Your task to perform on an android device: add a contact in the contacts app Image 0: 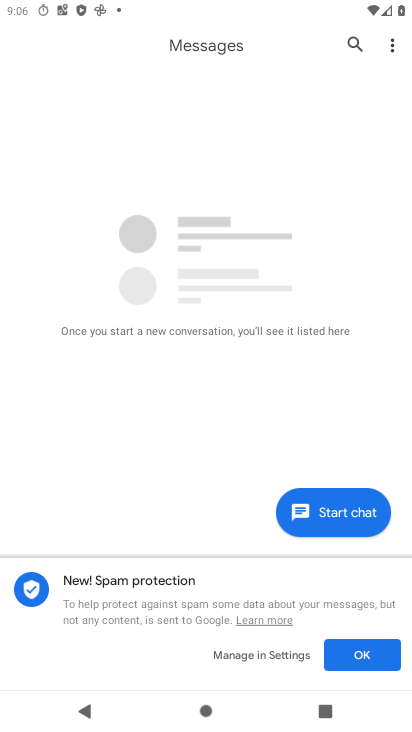
Step 0: press home button
Your task to perform on an android device: add a contact in the contacts app Image 1: 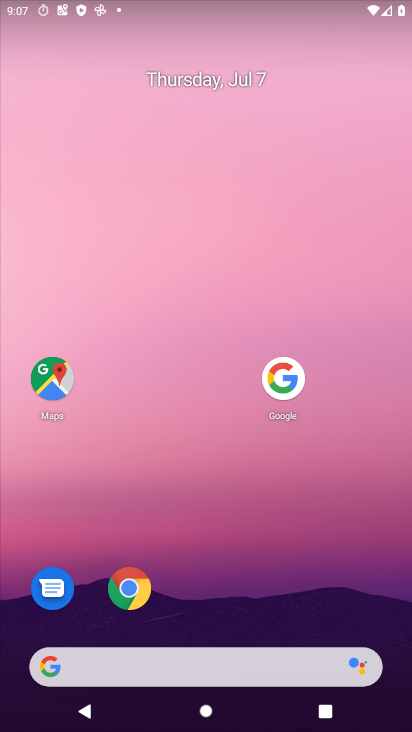
Step 1: click (285, 111)
Your task to perform on an android device: add a contact in the contacts app Image 2: 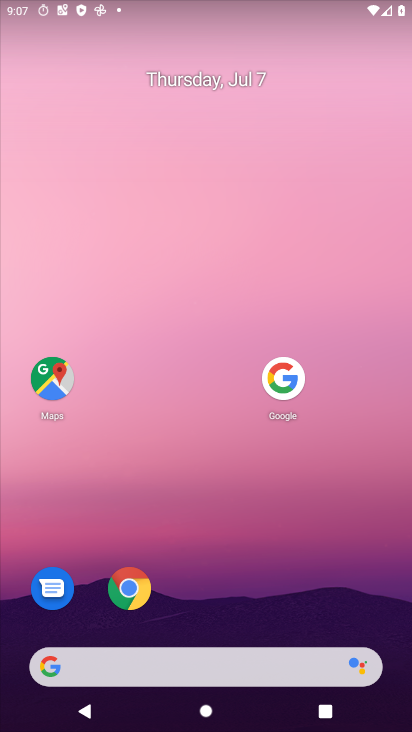
Step 2: drag from (232, 665) to (318, 43)
Your task to perform on an android device: add a contact in the contacts app Image 3: 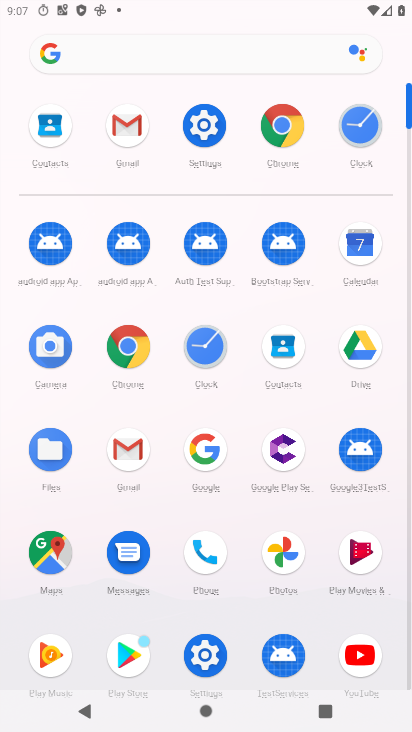
Step 3: click (283, 346)
Your task to perform on an android device: add a contact in the contacts app Image 4: 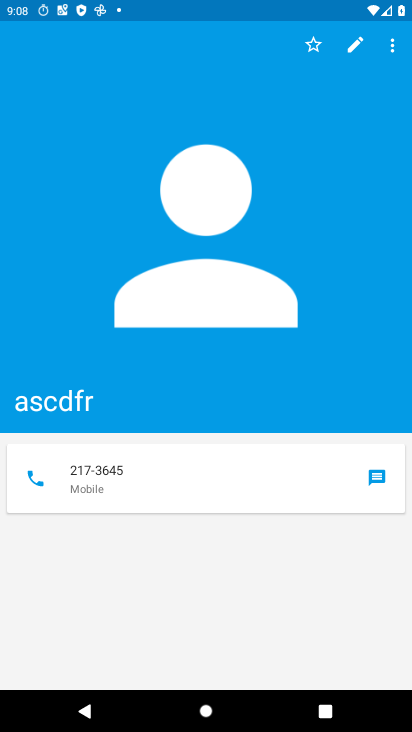
Step 4: press back button
Your task to perform on an android device: add a contact in the contacts app Image 5: 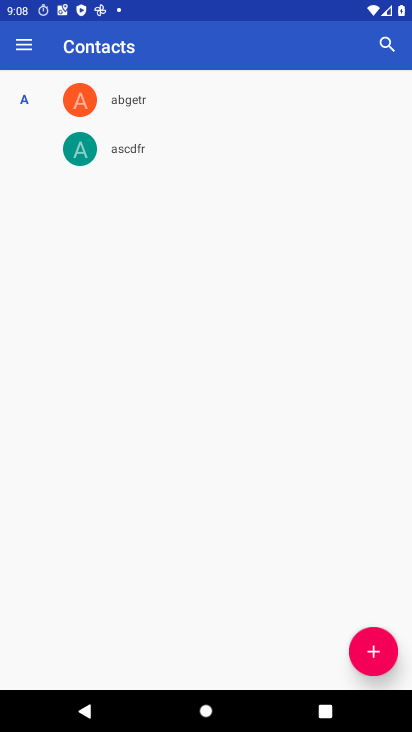
Step 5: click (385, 648)
Your task to perform on an android device: add a contact in the contacts app Image 6: 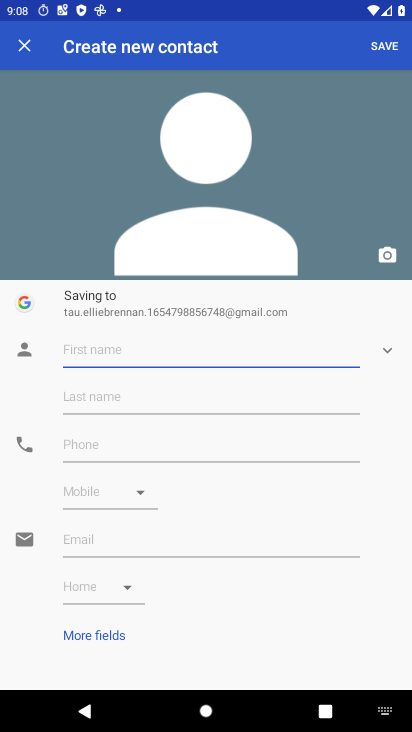
Step 6: click (123, 349)
Your task to perform on an android device: add a contact in the contacts app Image 7: 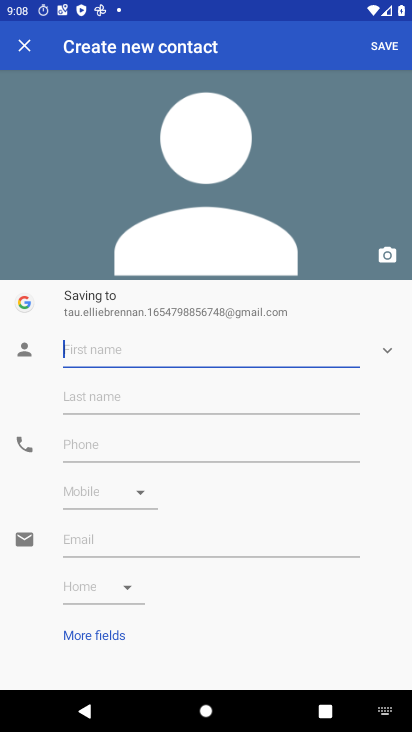
Step 7: type "atrhejfj"
Your task to perform on an android device: add a contact in the contacts app Image 8: 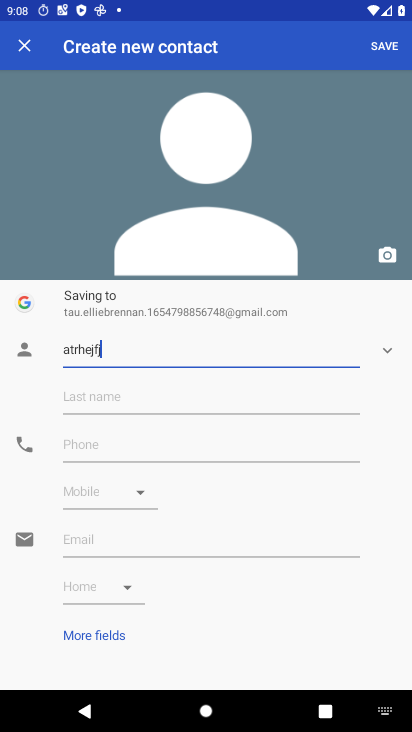
Step 8: click (80, 443)
Your task to perform on an android device: add a contact in the contacts app Image 9: 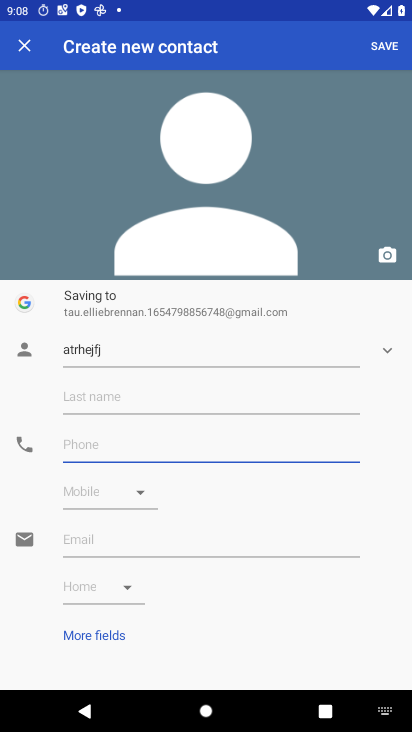
Step 9: type "638466583"
Your task to perform on an android device: add a contact in the contacts app Image 10: 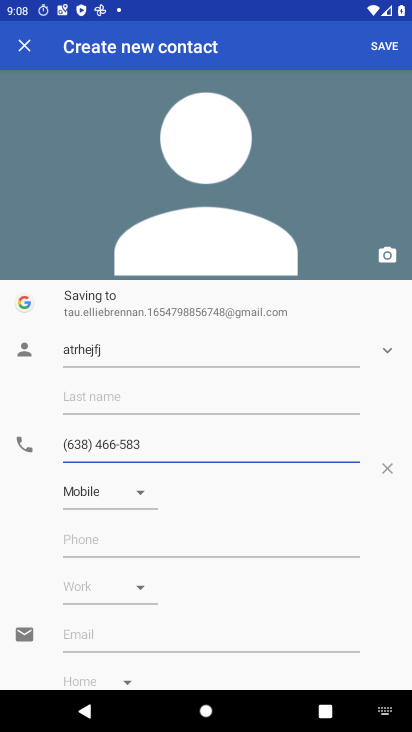
Step 10: click (388, 46)
Your task to perform on an android device: add a contact in the contacts app Image 11: 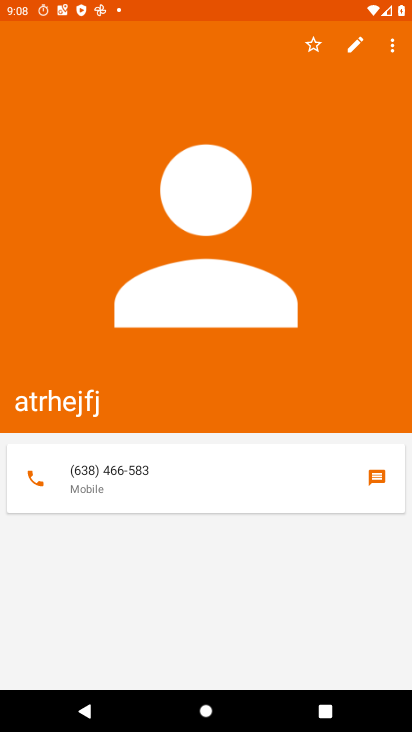
Step 11: task complete